Your task to perform on an android device: Open Wikipedia Image 0: 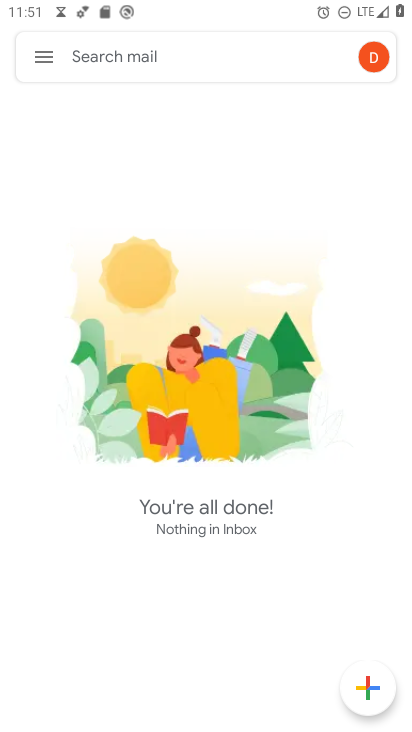
Step 0: press home button
Your task to perform on an android device: Open Wikipedia Image 1: 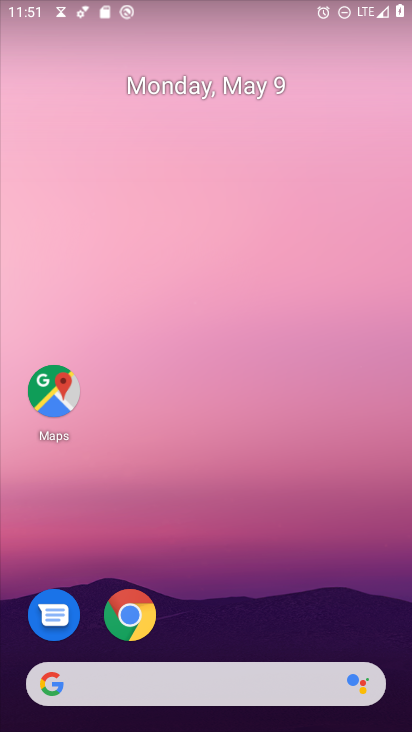
Step 1: click (128, 616)
Your task to perform on an android device: Open Wikipedia Image 2: 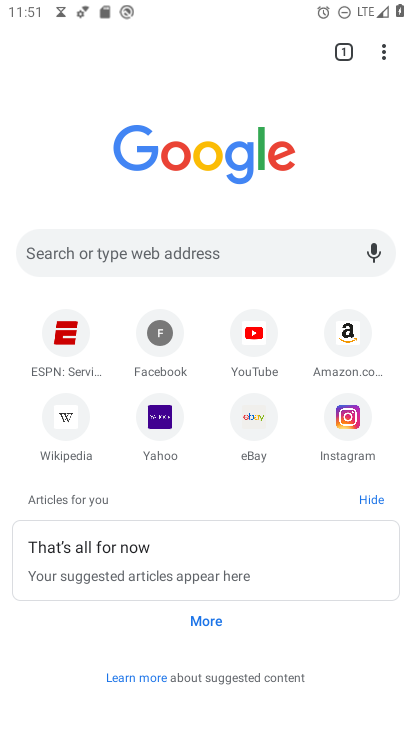
Step 2: click (199, 253)
Your task to perform on an android device: Open Wikipedia Image 3: 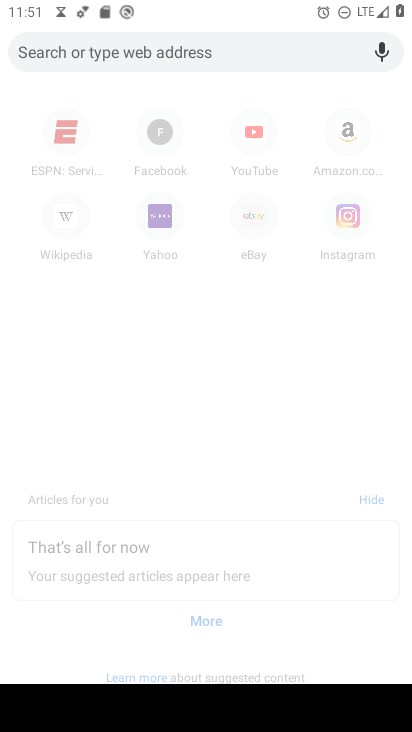
Step 3: type "Wikipedia"
Your task to perform on an android device: Open Wikipedia Image 4: 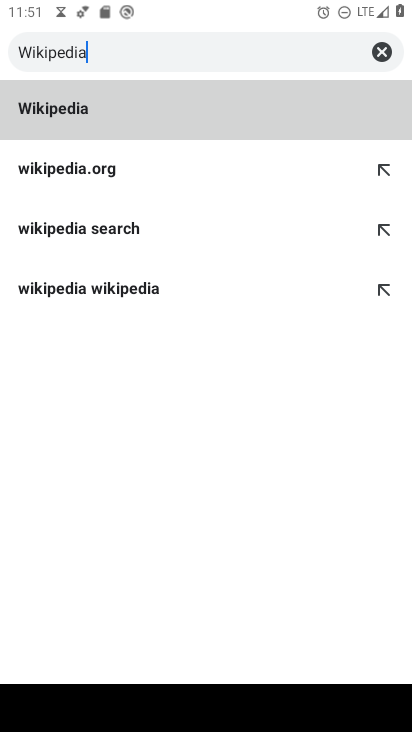
Step 4: click (126, 98)
Your task to perform on an android device: Open Wikipedia Image 5: 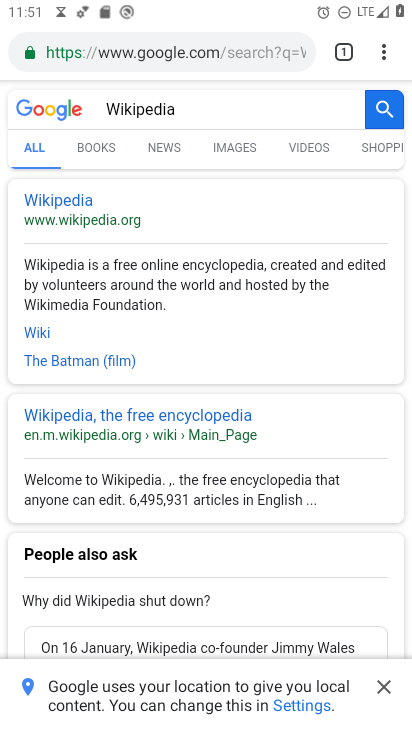
Step 5: click (48, 200)
Your task to perform on an android device: Open Wikipedia Image 6: 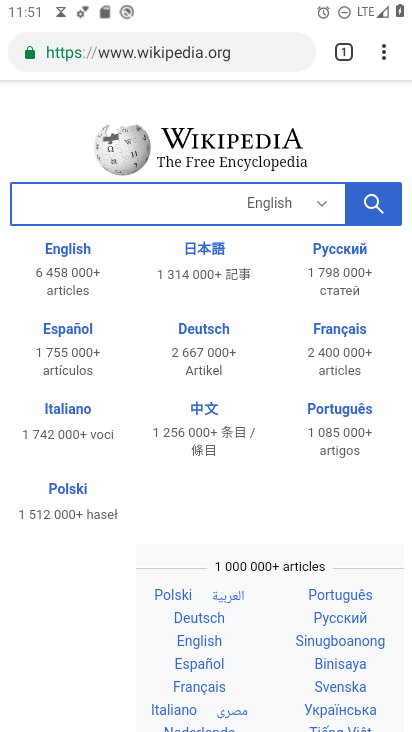
Step 6: task complete